Your task to perform on an android device: Open the web browser Image 0: 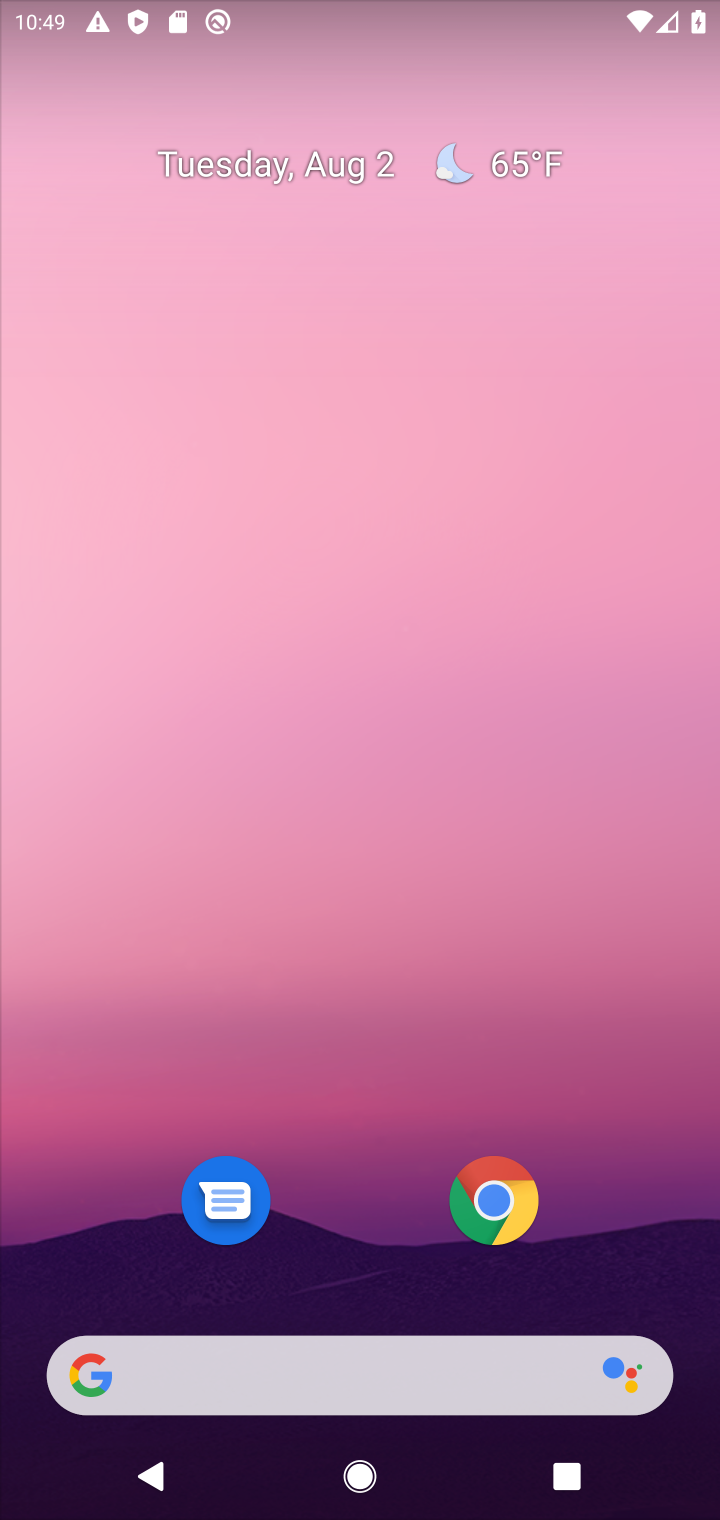
Step 0: click (497, 1202)
Your task to perform on an android device: Open the web browser Image 1: 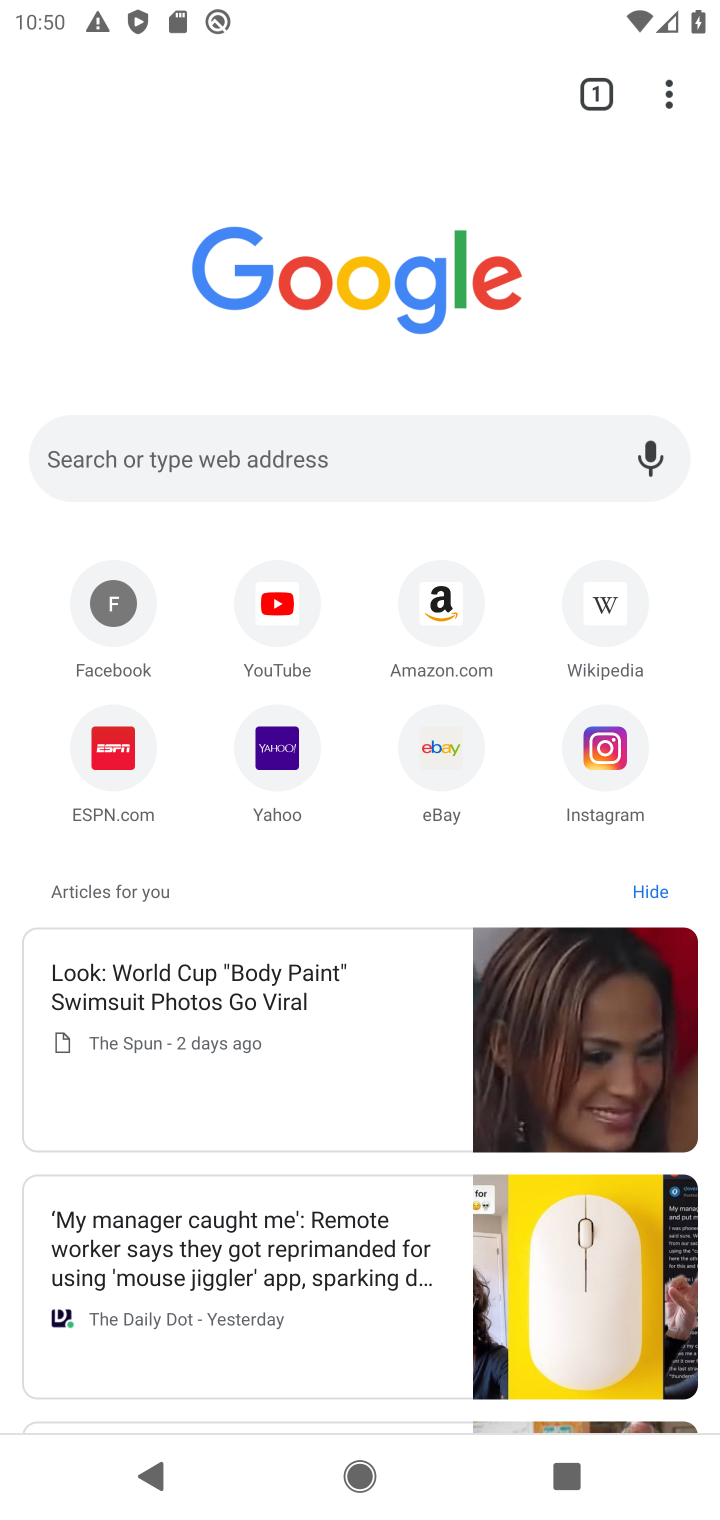
Step 1: task complete